Your task to perform on an android device: Open the web browser Image 0: 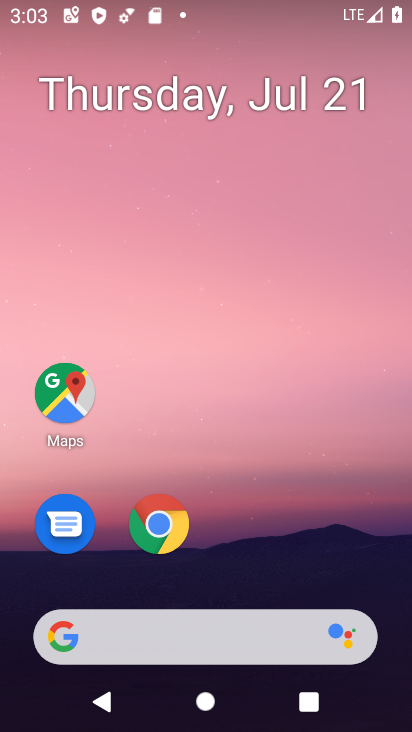
Step 0: click (238, 642)
Your task to perform on an android device: Open the web browser Image 1: 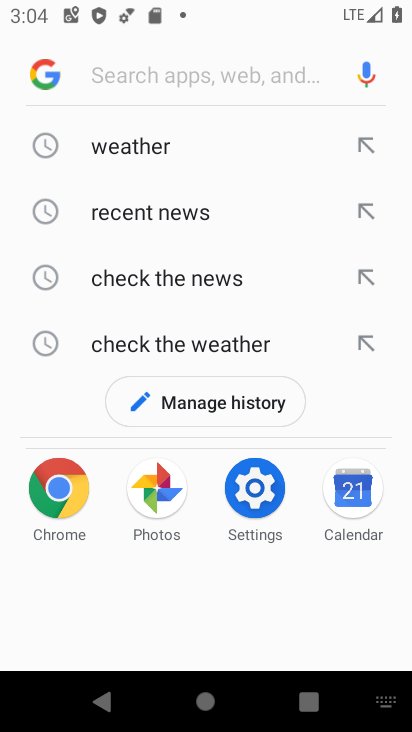
Step 1: task complete